Your task to perform on an android device: turn on improve location accuracy Image 0: 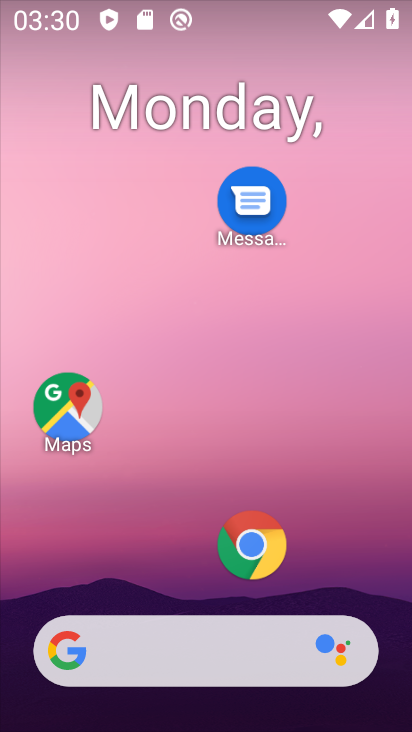
Step 0: drag from (174, 571) to (255, 230)
Your task to perform on an android device: turn on improve location accuracy Image 1: 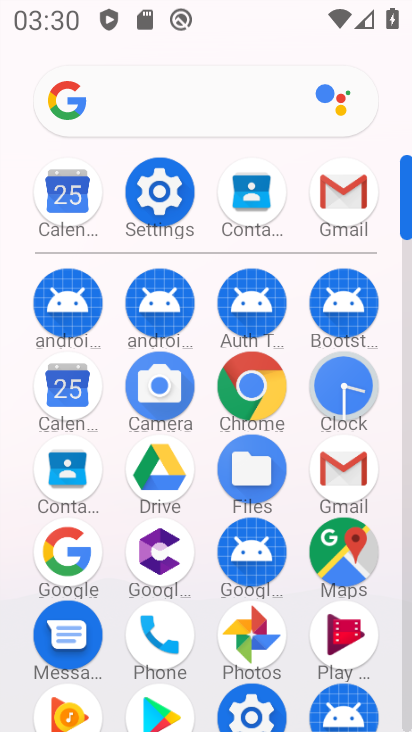
Step 1: click (152, 184)
Your task to perform on an android device: turn on improve location accuracy Image 2: 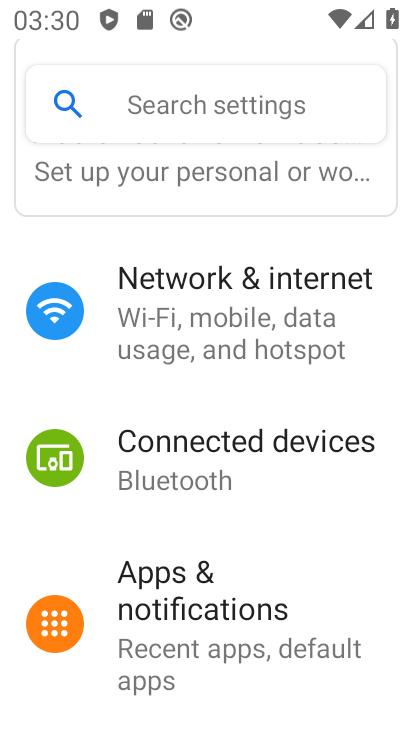
Step 2: drag from (181, 636) to (350, 60)
Your task to perform on an android device: turn on improve location accuracy Image 3: 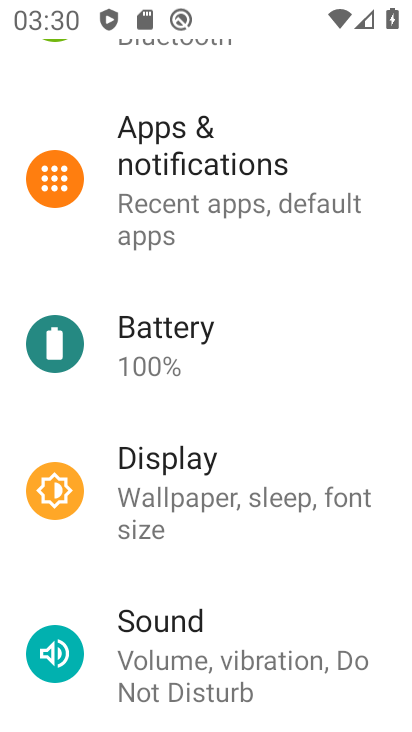
Step 3: drag from (225, 546) to (320, 98)
Your task to perform on an android device: turn on improve location accuracy Image 4: 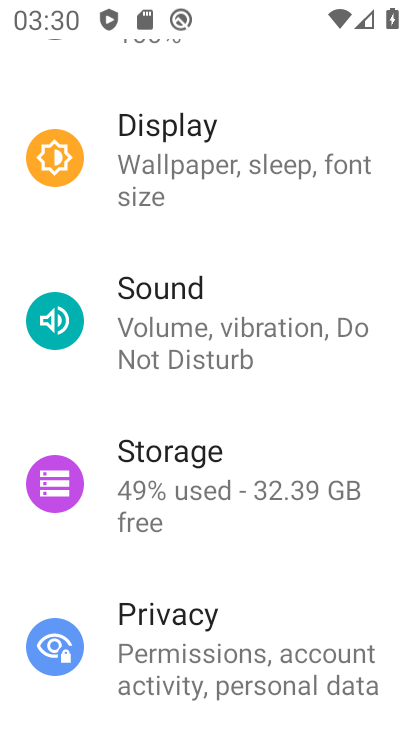
Step 4: drag from (217, 624) to (323, 90)
Your task to perform on an android device: turn on improve location accuracy Image 5: 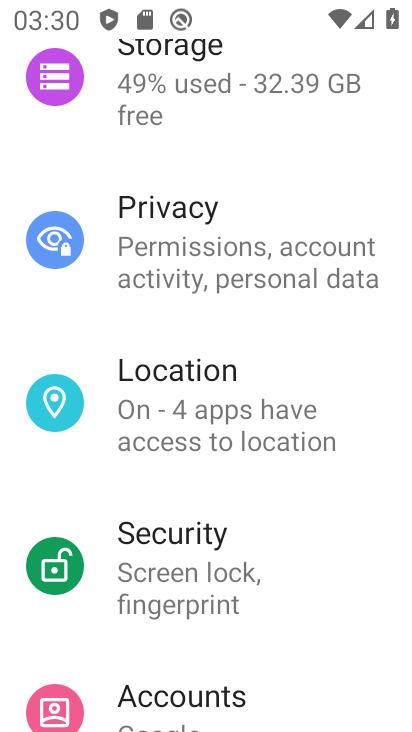
Step 5: click (219, 396)
Your task to perform on an android device: turn on improve location accuracy Image 6: 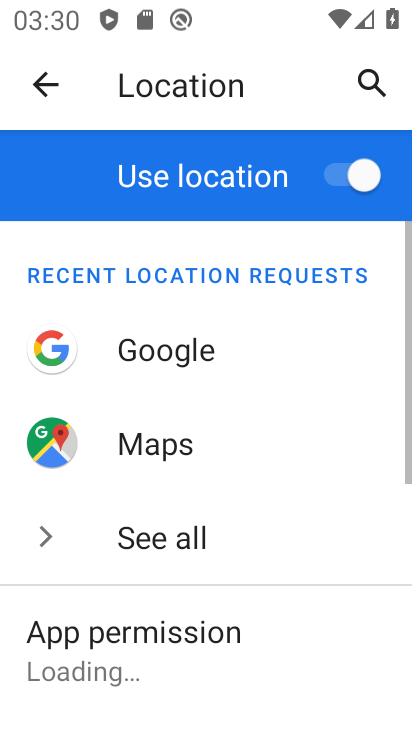
Step 6: drag from (177, 682) to (298, 184)
Your task to perform on an android device: turn on improve location accuracy Image 7: 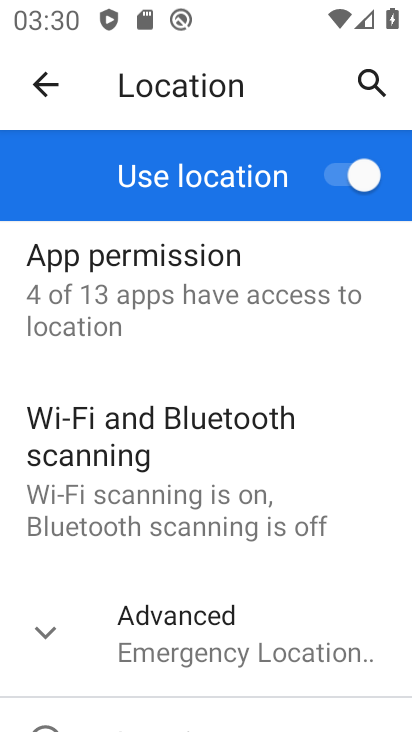
Step 7: click (211, 622)
Your task to perform on an android device: turn on improve location accuracy Image 8: 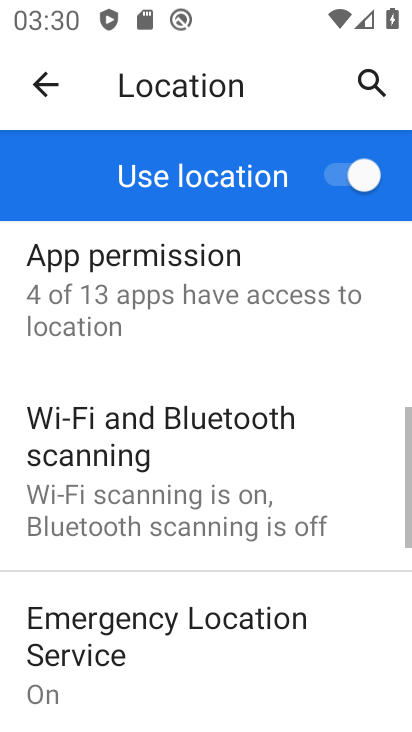
Step 8: drag from (211, 683) to (329, 150)
Your task to perform on an android device: turn on improve location accuracy Image 9: 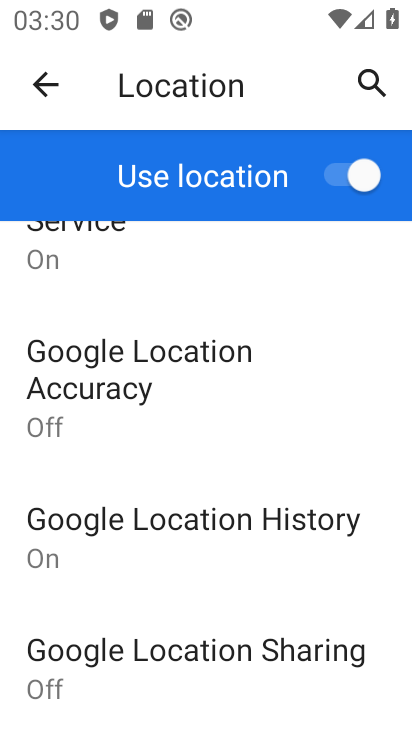
Step 9: click (129, 350)
Your task to perform on an android device: turn on improve location accuracy Image 10: 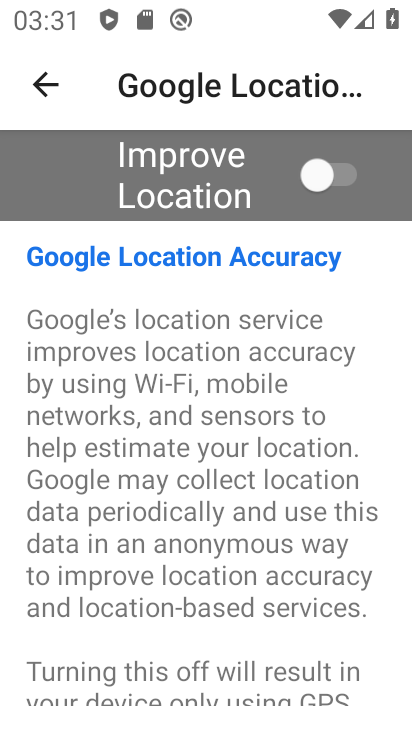
Step 10: click (320, 173)
Your task to perform on an android device: turn on improve location accuracy Image 11: 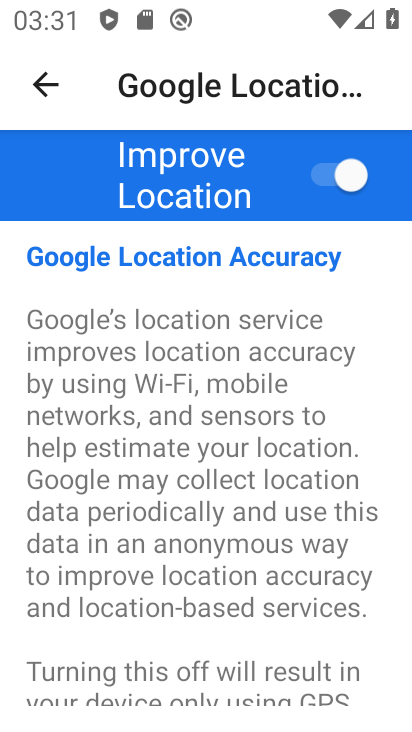
Step 11: task complete